Your task to perform on an android device: Open Google Maps Image 0: 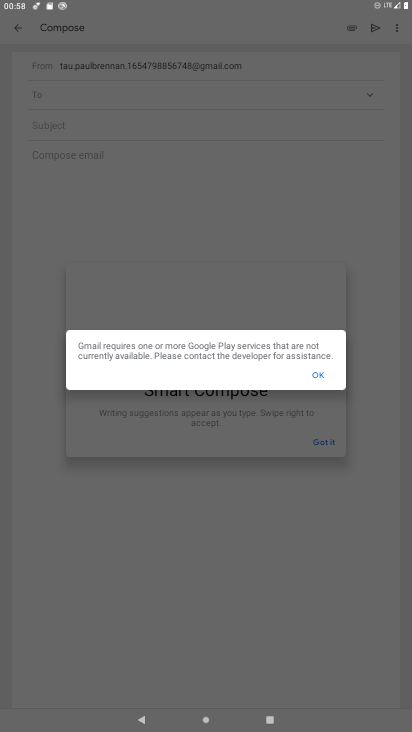
Step 0: press home button
Your task to perform on an android device: Open Google Maps Image 1: 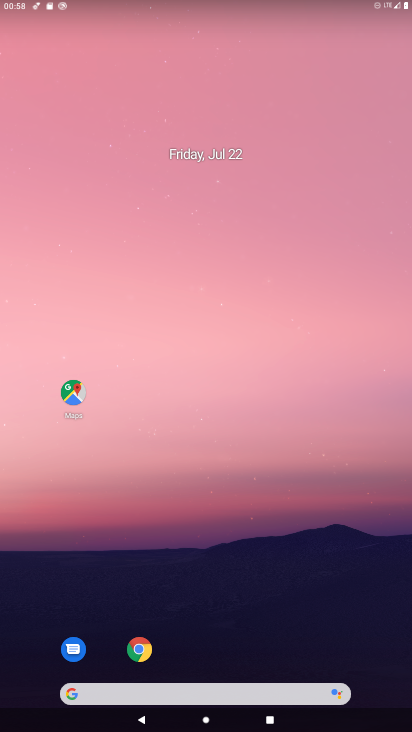
Step 1: drag from (244, 653) to (207, 281)
Your task to perform on an android device: Open Google Maps Image 2: 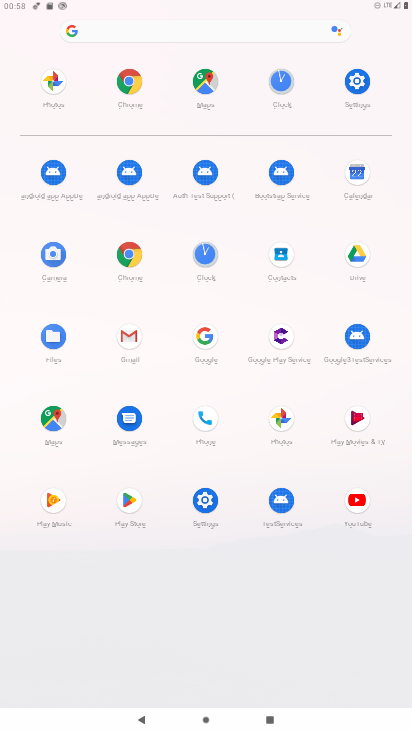
Step 2: click (54, 414)
Your task to perform on an android device: Open Google Maps Image 3: 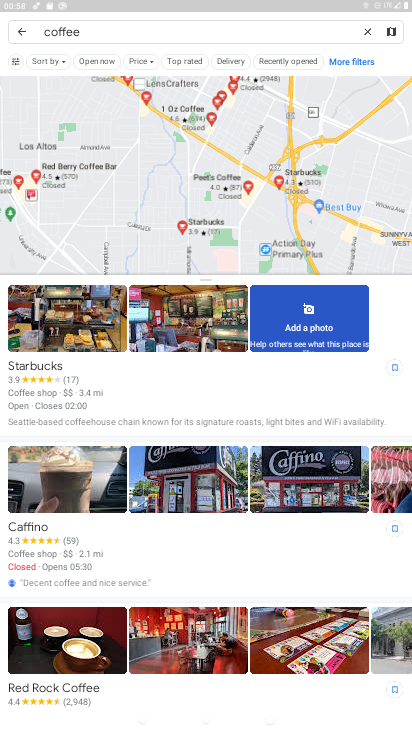
Step 3: task complete